Your task to perform on an android device: see sites visited before in the chrome app Image 0: 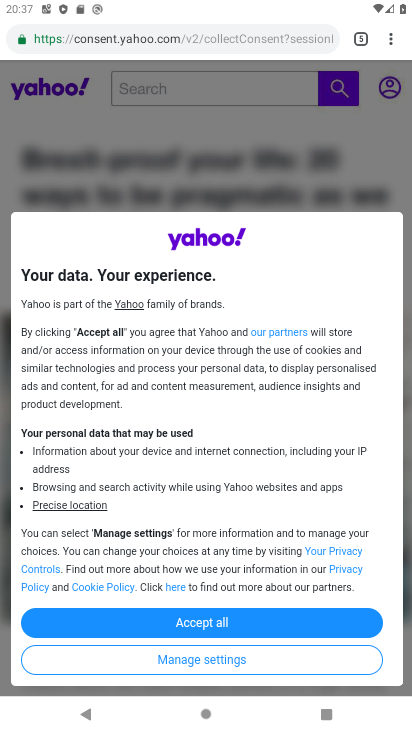
Step 0: click (391, 32)
Your task to perform on an android device: see sites visited before in the chrome app Image 1: 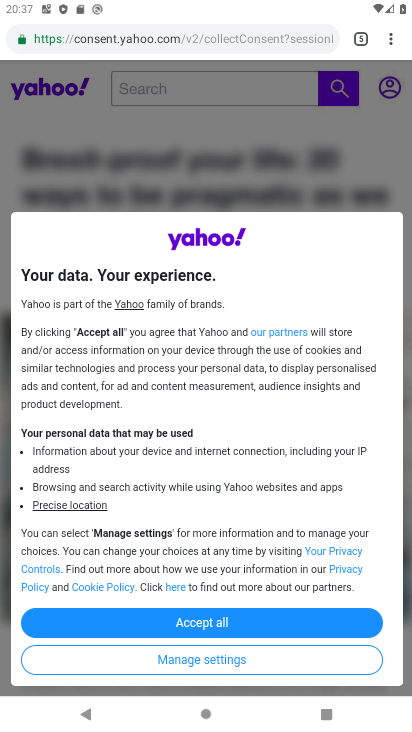
Step 1: click (395, 42)
Your task to perform on an android device: see sites visited before in the chrome app Image 2: 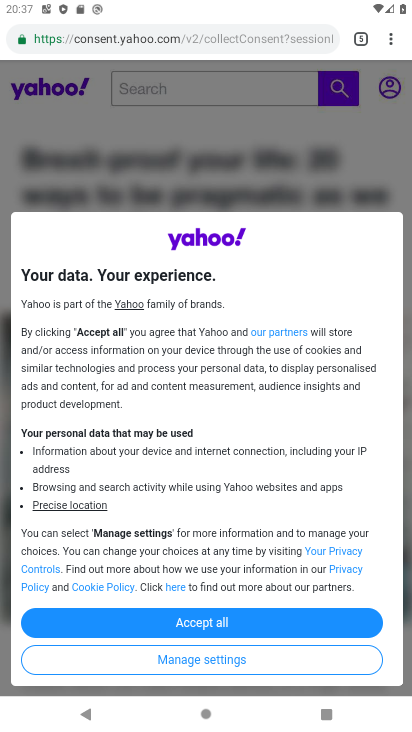
Step 2: click (392, 38)
Your task to perform on an android device: see sites visited before in the chrome app Image 3: 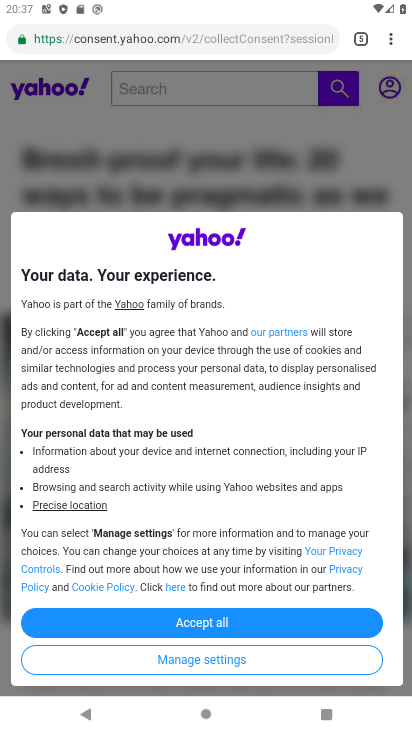
Step 3: click (390, 36)
Your task to perform on an android device: see sites visited before in the chrome app Image 4: 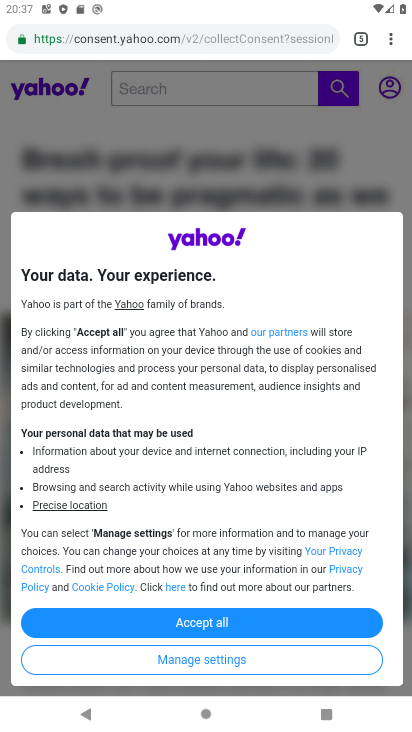
Step 4: click (394, 33)
Your task to perform on an android device: see sites visited before in the chrome app Image 5: 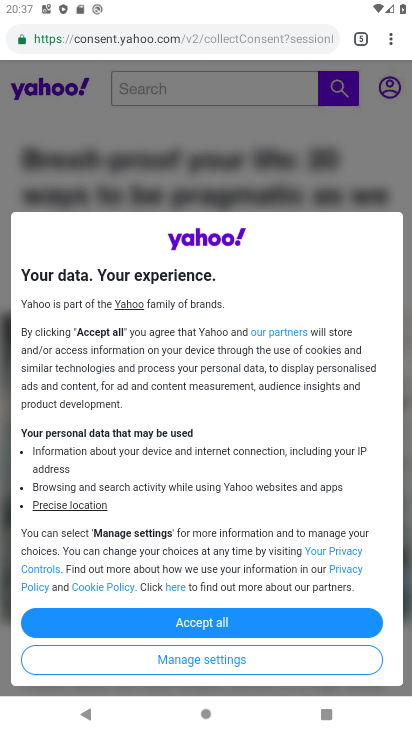
Step 5: click (384, 35)
Your task to perform on an android device: see sites visited before in the chrome app Image 6: 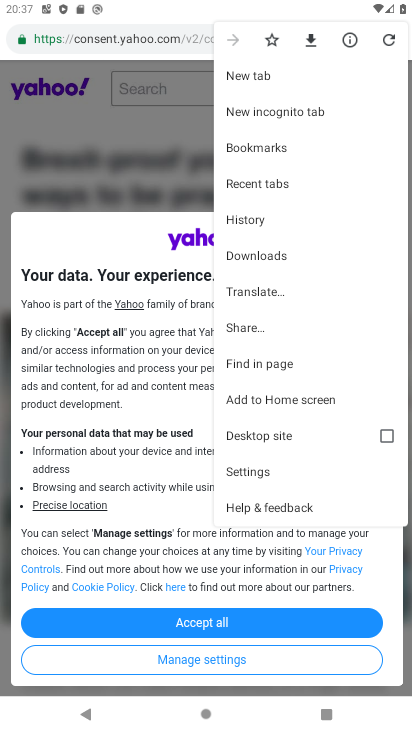
Step 6: click (260, 475)
Your task to perform on an android device: see sites visited before in the chrome app Image 7: 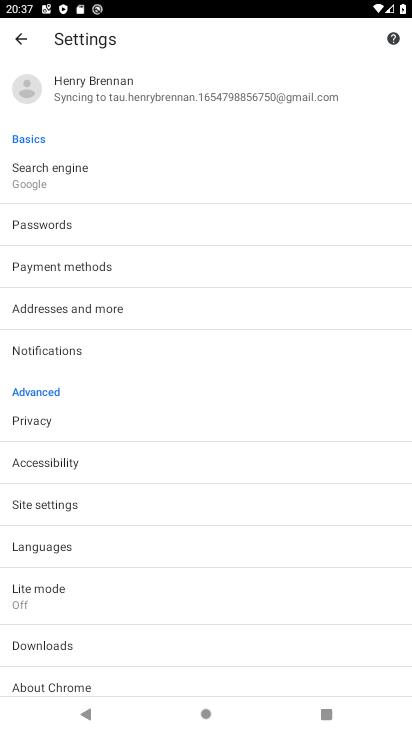
Step 7: click (28, 488)
Your task to perform on an android device: see sites visited before in the chrome app Image 8: 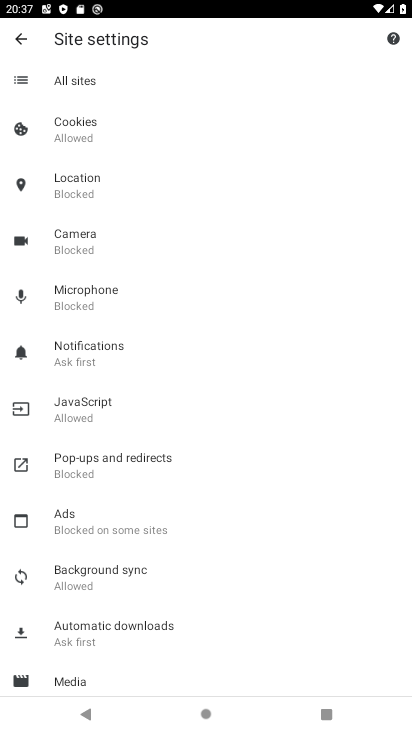
Step 8: task complete